Your task to perform on an android device: turn off smart reply in the gmail app Image 0: 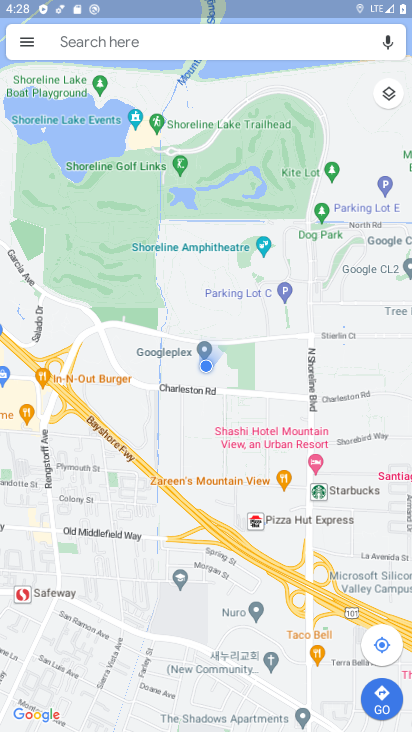
Step 0: press back button
Your task to perform on an android device: turn off smart reply in the gmail app Image 1: 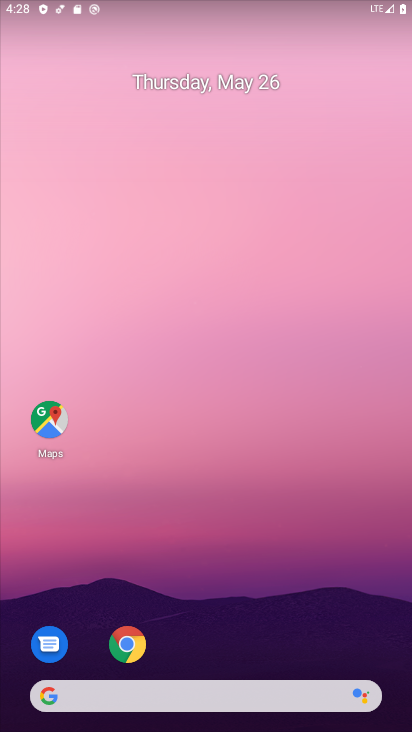
Step 1: drag from (282, 602) to (241, 36)
Your task to perform on an android device: turn off smart reply in the gmail app Image 2: 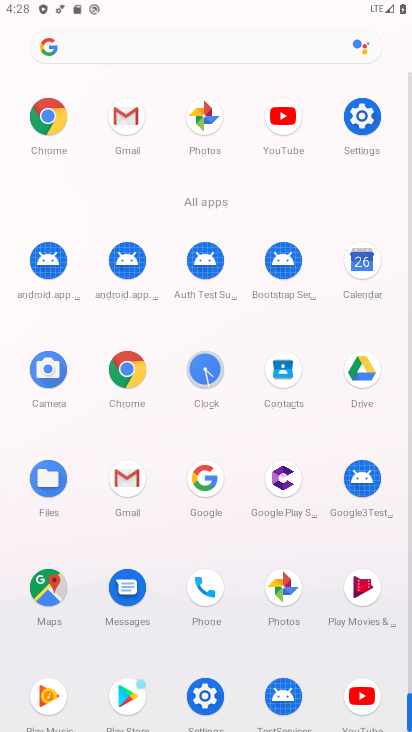
Step 2: click (126, 473)
Your task to perform on an android device: turn off smart reply in the gmail app Image 3: 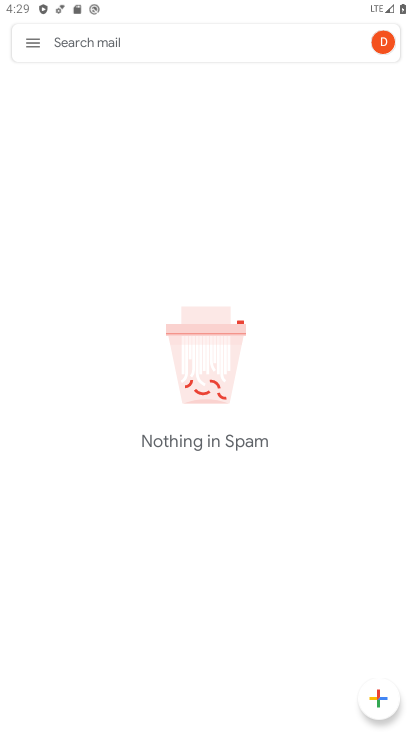
Step 3: click (38, 33)
Your task to perform on an android device: turn off smart reply in the gmail app Image 4: 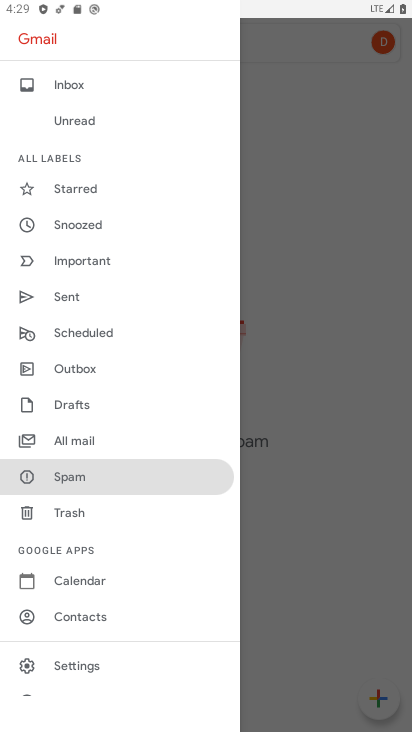
Step 4: click (76, 658)
Your task to perform on an android device: turn off smart reply in the gmail app Image 5: 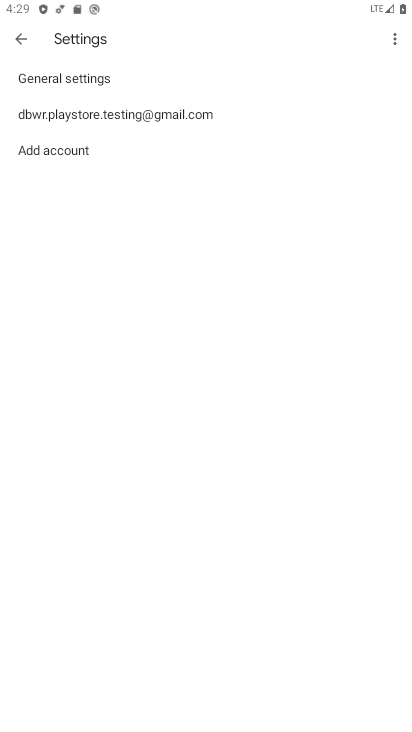
Step 5: click (139, 113)
Your task to perform on an android device: turn off smart reply in the gmail app Image 6: 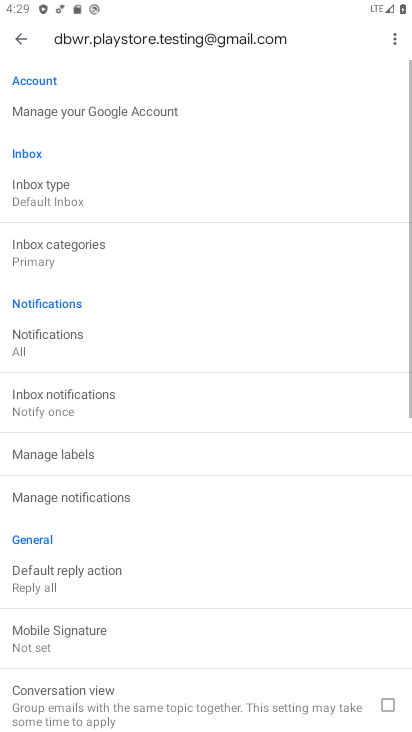
Step 6: drag from (213, 619) to (237, 198)
Your task to perform on an android device: turn off smart reply in the gmail app Image 7: 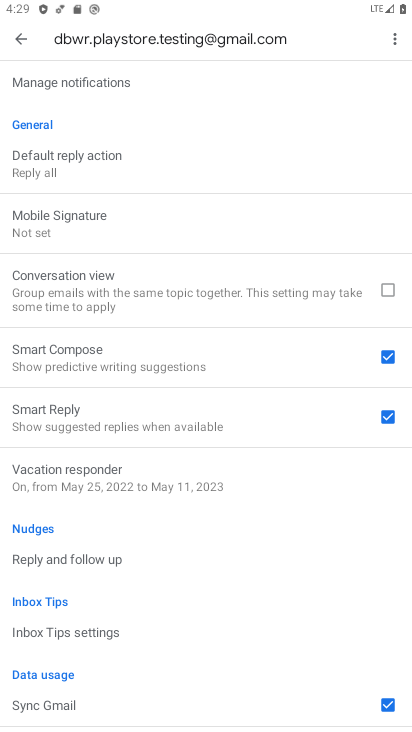
Step 7: click (395, 410)
Your task to perform on an android device: turn off smart reply in the gmail app Image 8: 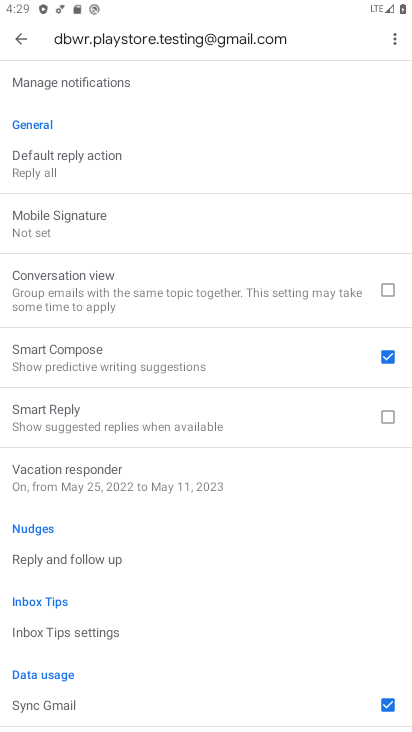
Step 8: task complete